Your task to perform on an android device: clear all cookies in the chrome app Image 0: 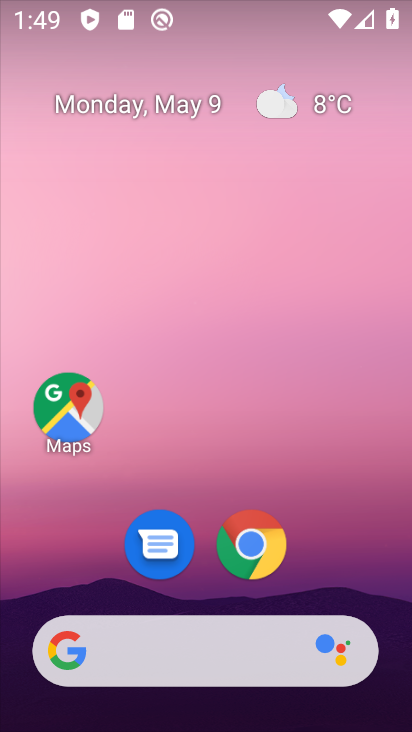
Step 0: click (252, 560)
Your task to perform on an android device: clear all cookies in the chrome app Image 1: 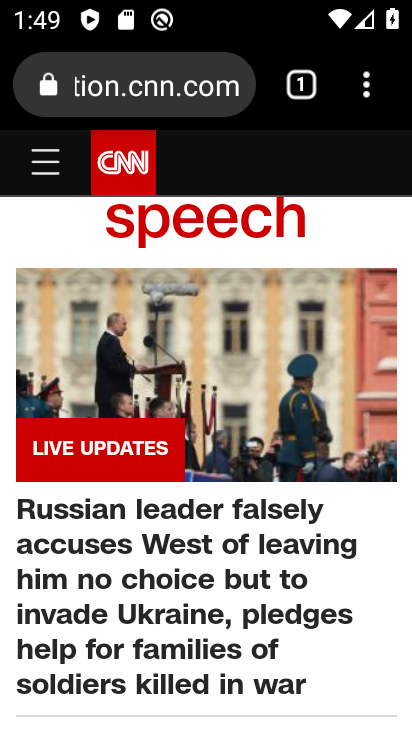
Step 1: click (375, 79)
Your task to perform on an android device: clear all cookies in the chrome app Image 2: 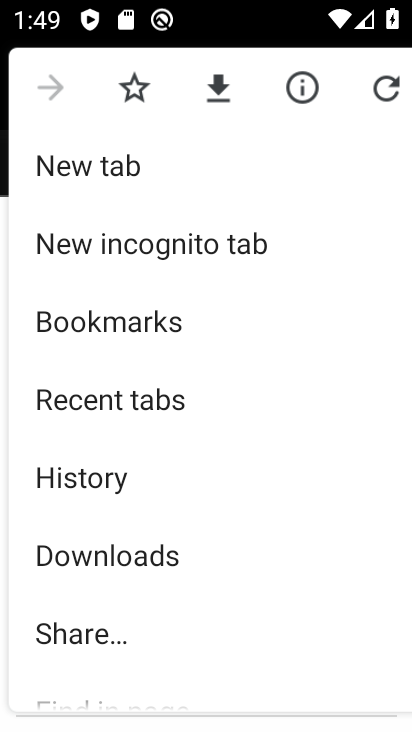
Step 2: drag from (201, 700) to (267, 493)
Your task to perform on an android device: clear all cookies in the chrome app Image 3: 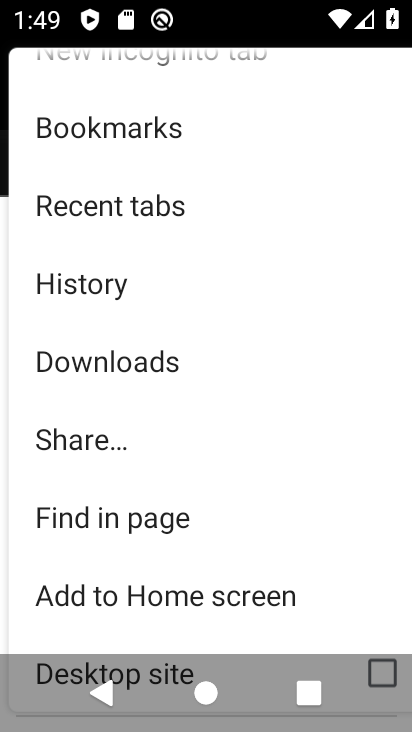
Step 3: drag from (218, 646) to (277, 494)
Your task to perform on an android device: clear all cookies in the chrome app Image 4: 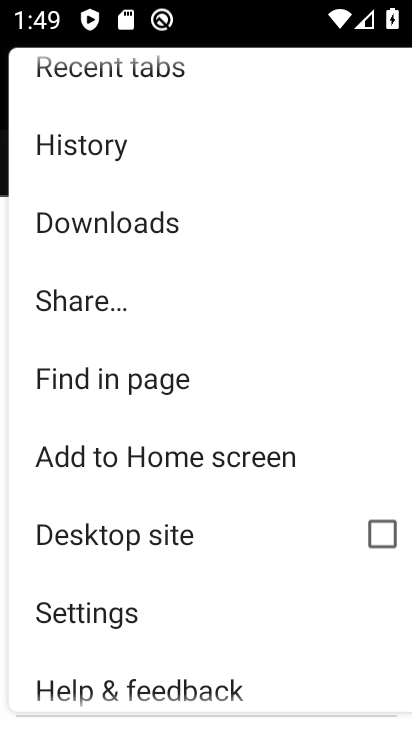
Step 4: click (201, 623)
Your task to perform on an android device: clear all cookies in the chrome app Image 5: 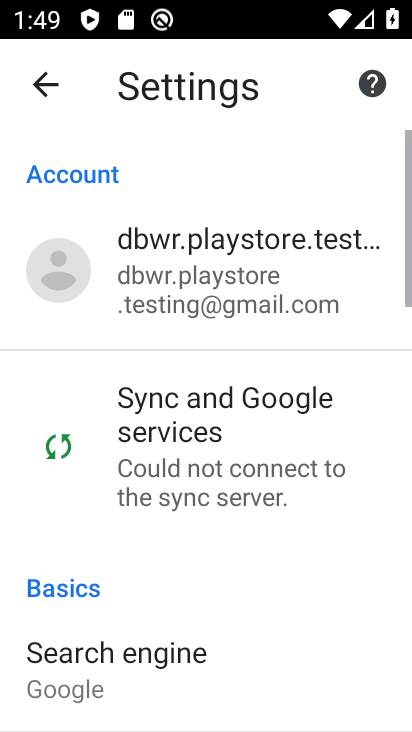
Step 5: drag from (201, 623) to (265, 390)
Your task to perform on an android device: clear all cookies in the chrome app Image 6: 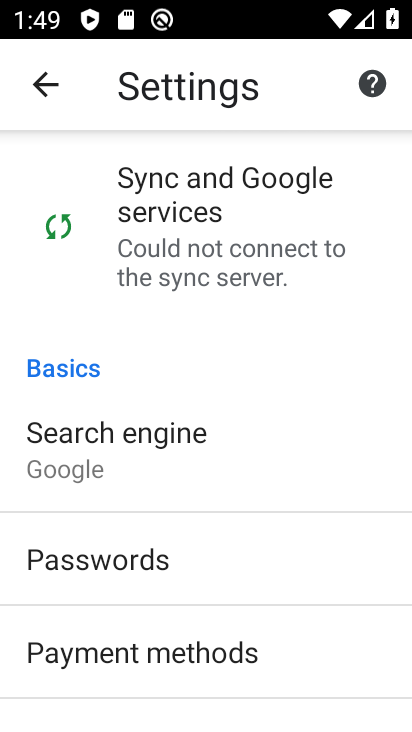
Step 6: drag from (203, 656) to (321, 434)
Your task to perform on an android device: clear all cookies in the chrome app Image 7: 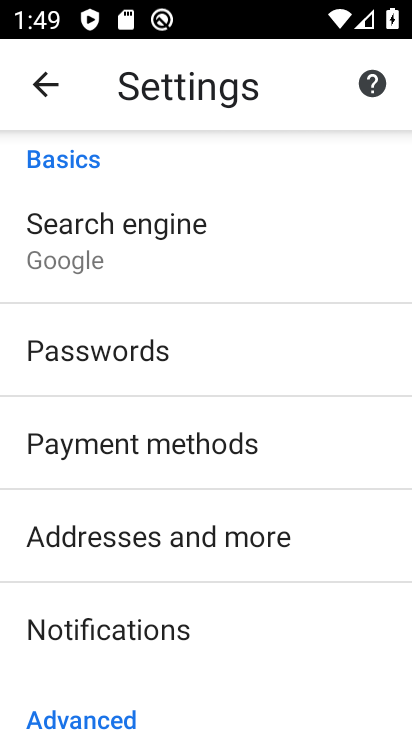
Step 7: drag from (256, 664) to (383, 354)
Your task to perform on an android device: clear all cookies in the chrome app Image 8: 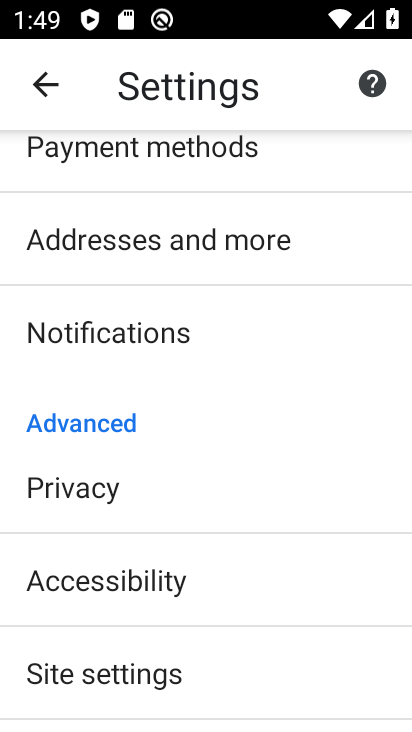
Step 8: drag from (201, 620) to (254, 460)
Your task to perform on an android device: clear all cookies in the chrome app Image 9: 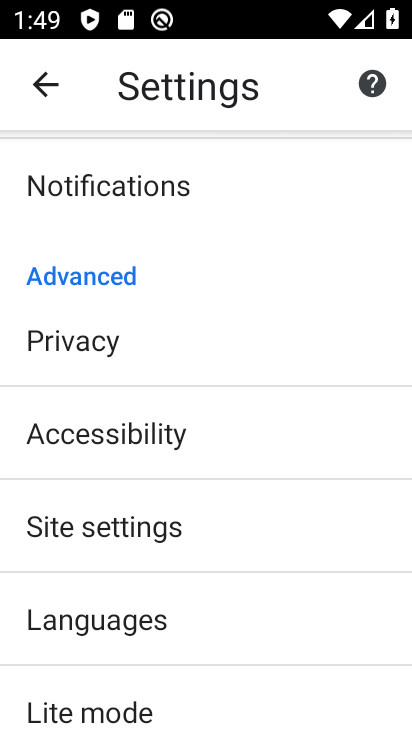
Step 9: drag from (240, 680) to (291, 556)
Your task to perform on an android device: clear all cookies in the chrome app Image 10: 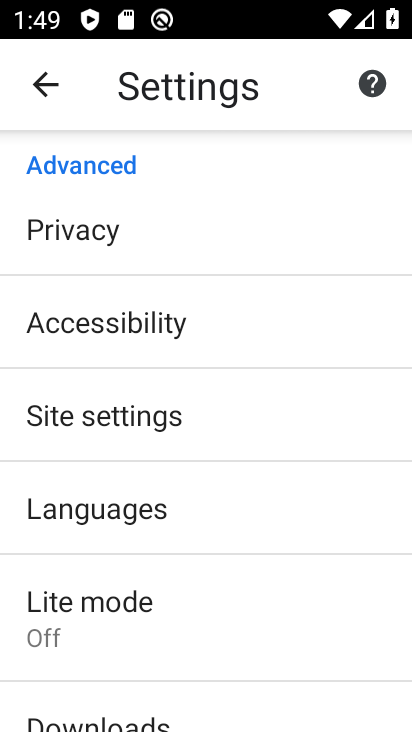
Step 10: drag from (262, 664) to (329, 508)
Your task to perform on an android device: clear all cookies in the chrome app Image 11: 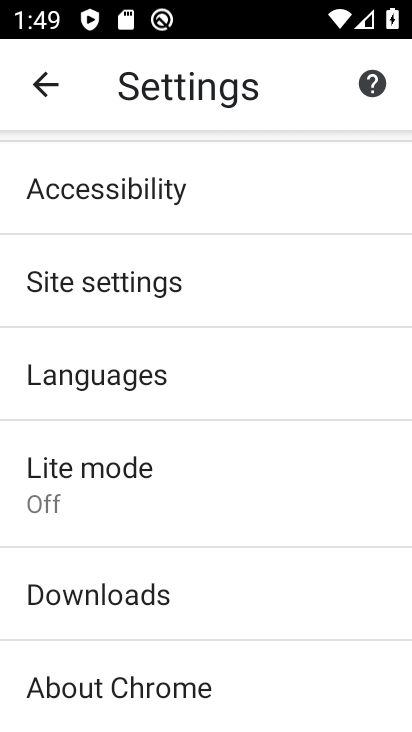
Step 11: drag from (217, 645) to (390, 192)
Your task to perform on an android device: clear all cookies in the chrome app Image 12: 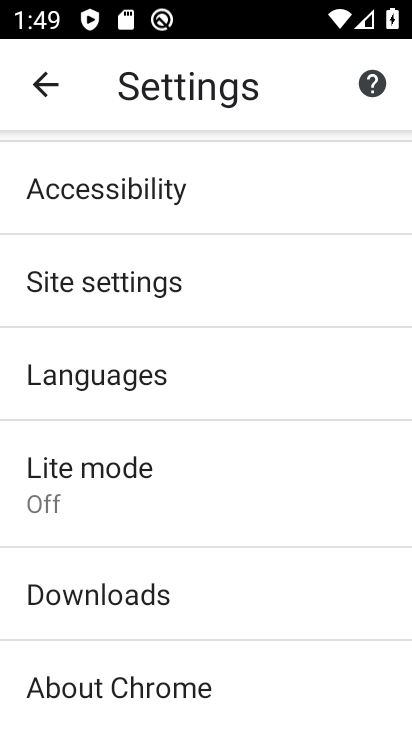
Step 12: drag from (225, 289) to (225, 441)
Your task to perform on an android device: clear all cookies in the chrome app Image 13: 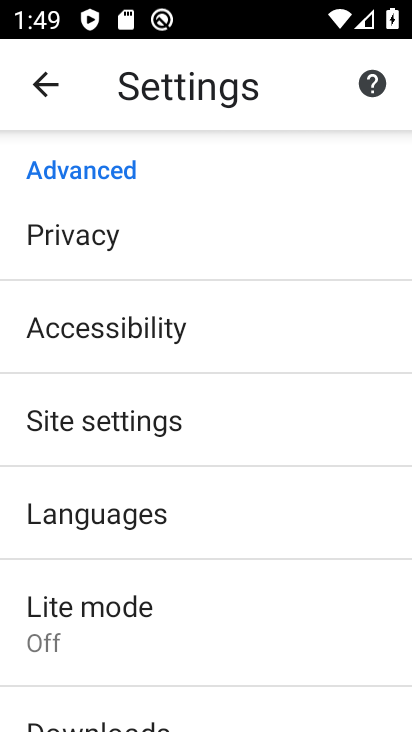
Step 13: click (235, 242)
Your task to perform on an android device: clear all cookies in the chrome app Image 14: 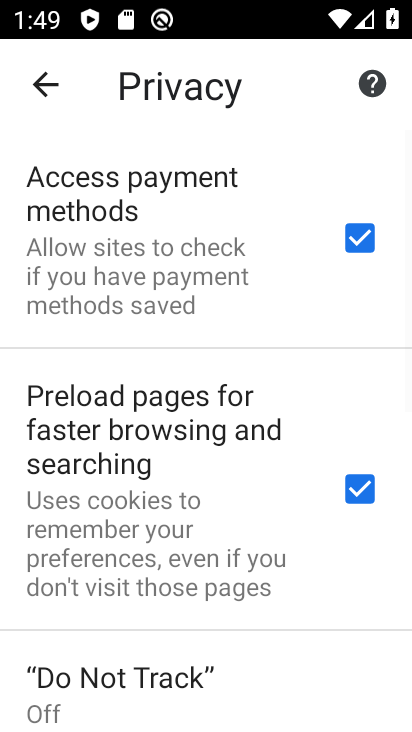
Step 14: drag from (200, 692) to (344, 280)
Your task to perform on an android device: clear all cookies in the chrome app Image 15: 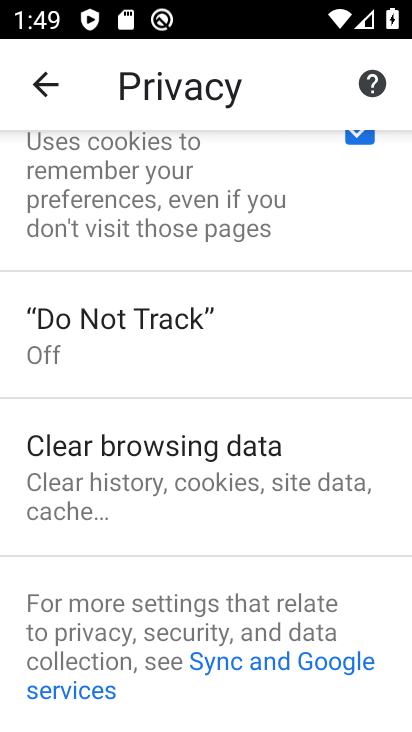
Step 15: click (241, 453)
Your task to perform on an android device: clear all cookies in the chrome app Image 16: 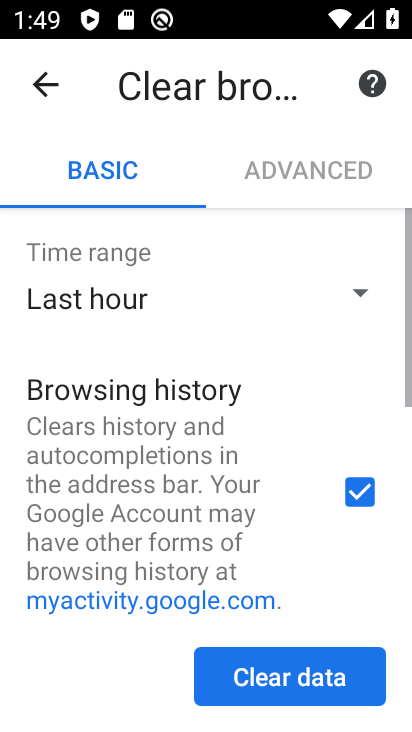
Step 16: drag from (231, 569) to (288, 406)
Your task to perform on an android device: clear all cookies in the chrome app Image 17: 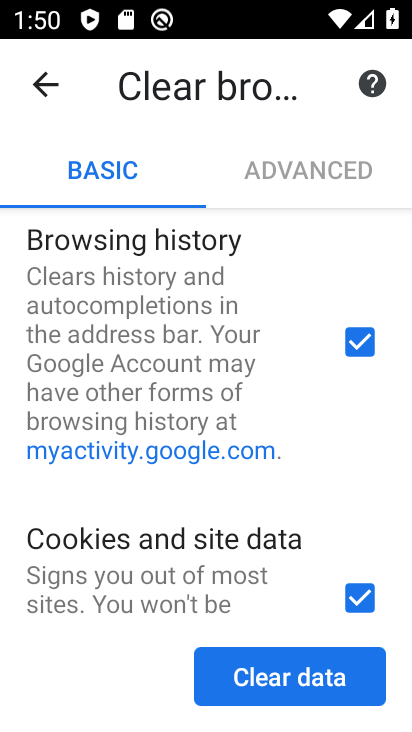
Step 17: drag from (214, 565) to (308, 394)
Your task to perform on an android device: clear all cookies in the chrome app Image 18: 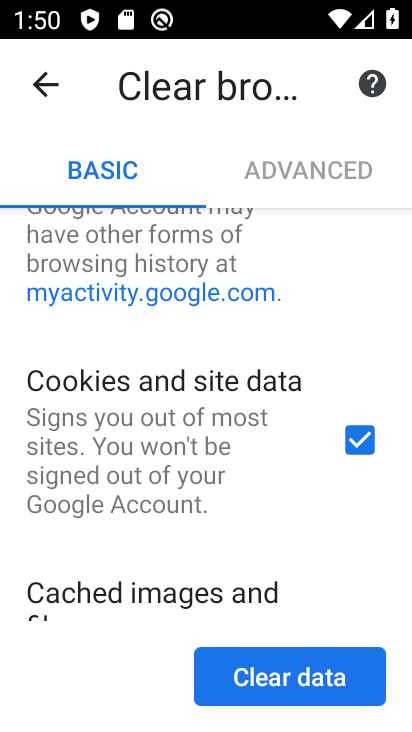
Step 18: drag from (285, 218) to (386, 52)
Your task to perform on an android device: clear all cookies in the chrome app Image 19: 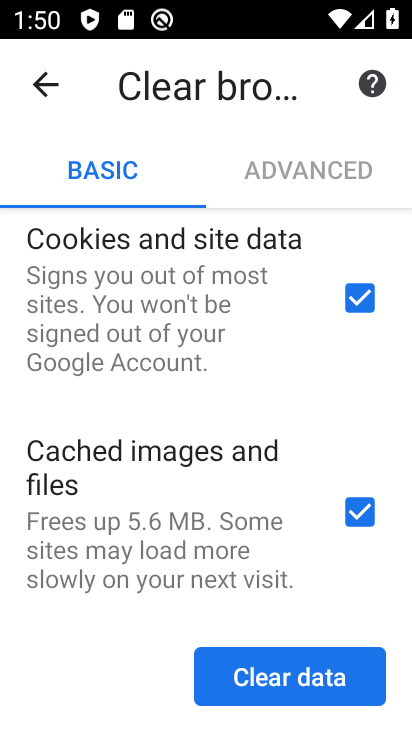
Step 19: click (356, 514)
Your task to perform on an android device: clear all cookies in the chrome app Image 20: 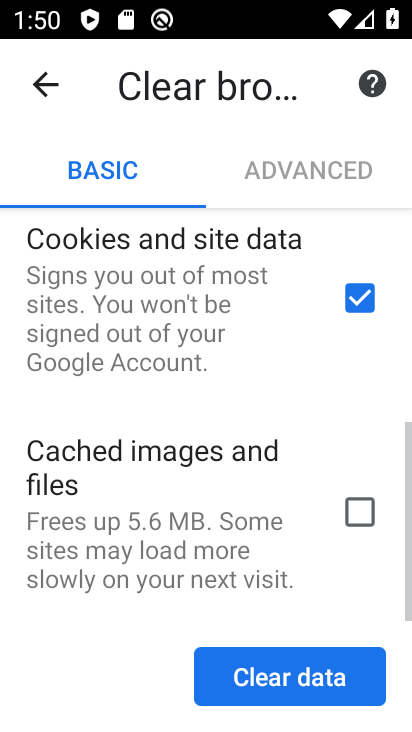
Step 20: drag from (264, 350) to (271, 583)
Your task to perform on an android device: clear all cookies in the chrome app Image 21: 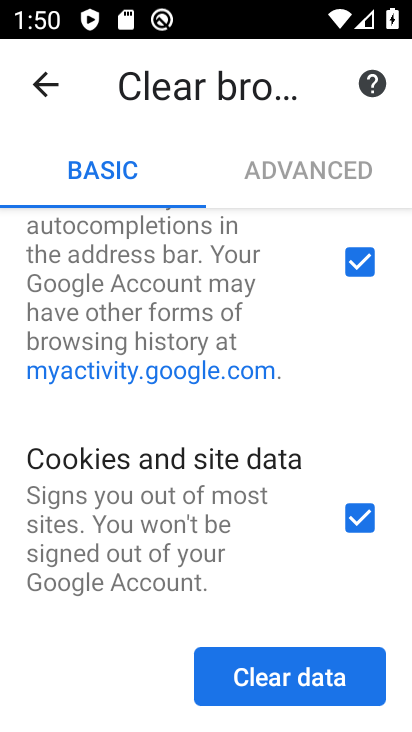
Step 21: click (363, 256)
Your task to perform on an android device: clear all cookies in the chrome app Image 22: 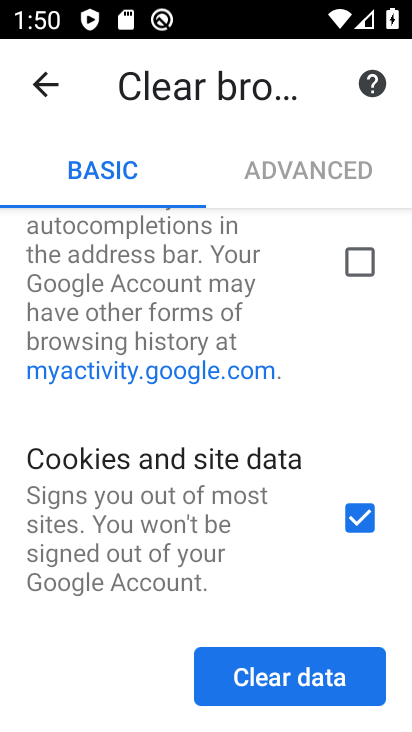
Step 22: click (278, 669)
Your task to perform on an android device: clear all cookies in the chrome app Image 23: 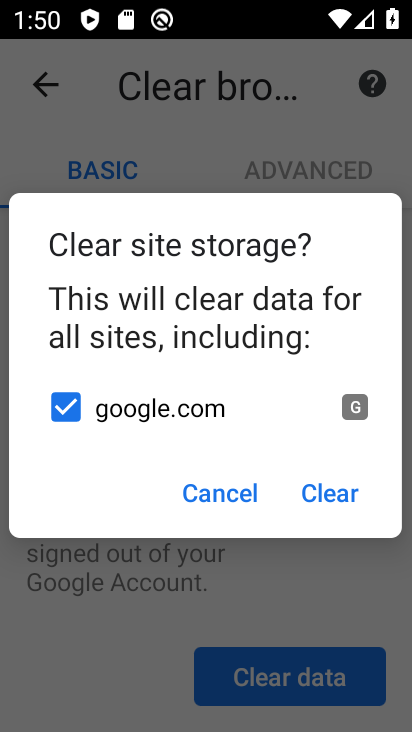
Step 23: click (323, 513)
Your task to perform on an android device: clear all cookies in the chrome app Image 24: 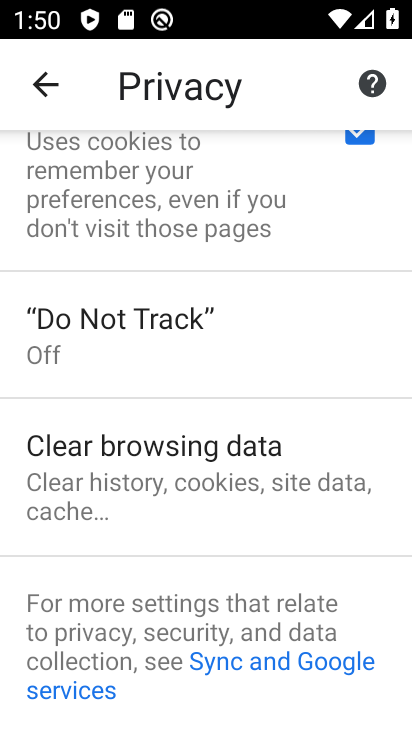
Step 24: task complete